Your task to perform on an android device: toggle show notifications on the lock screen Image 0: 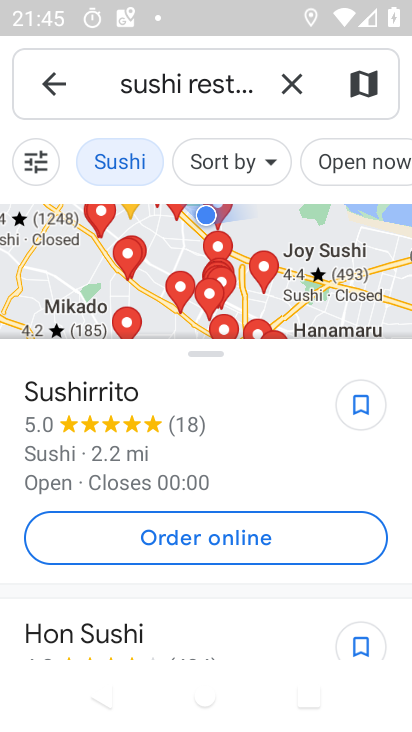
Step 0: press home button
Your task to perform on an android device: toggle show notifications on the lock screen Image 1: 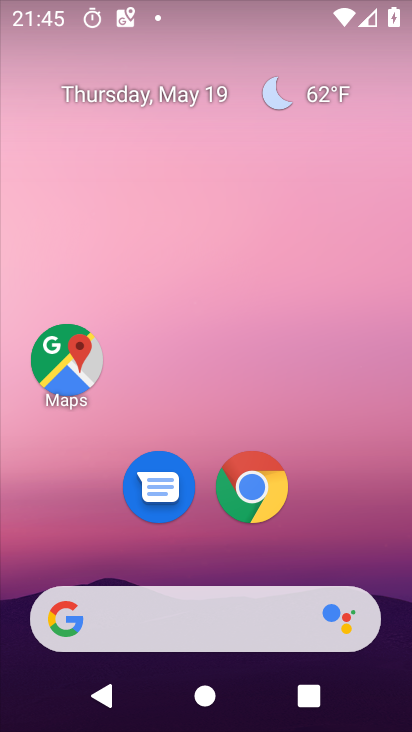
Step 1: drag from (268, 551) to (258, 98)
Your task to perform on an android device: toggle show notifications on the lock screen Image 2: 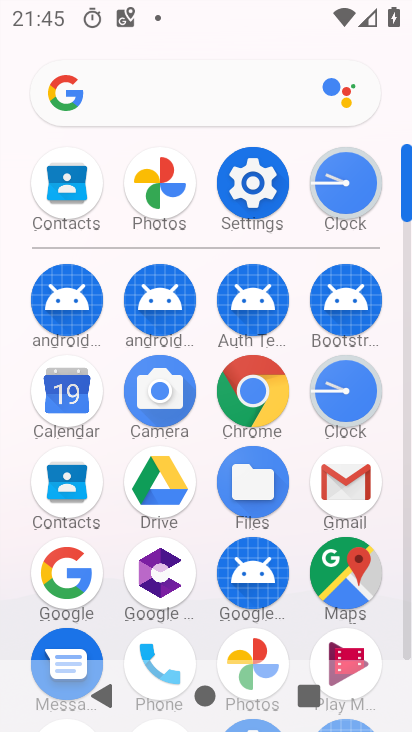
Step 2: click (261, 194)
Your task to perform on an android device: toggle show notifications on the lock screen Image 3: 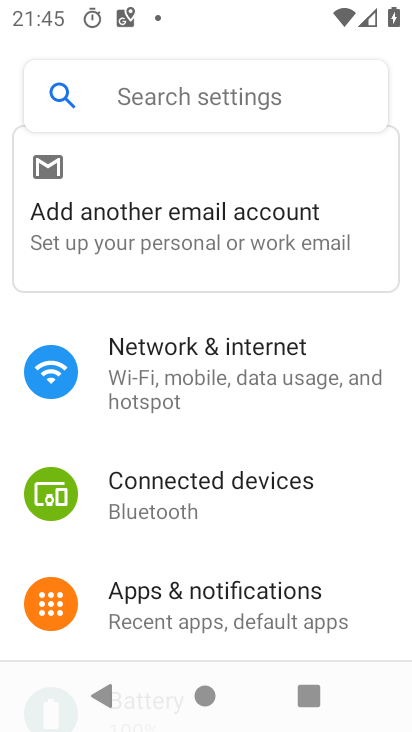
Step 3: drag from (283, 569) to (292, 453)
Your task to perform on an android device: toggle show notifications on the lock screen Image 4: 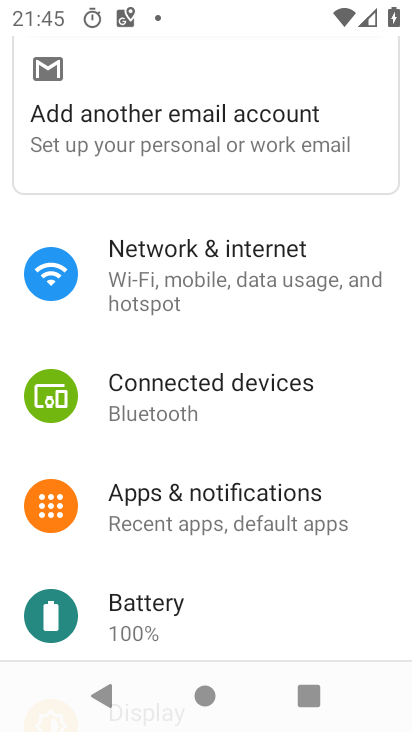
Step 4: click (263, 471)
Your task to perform on an android device: toggle show notifications on the lock screen Image 5: 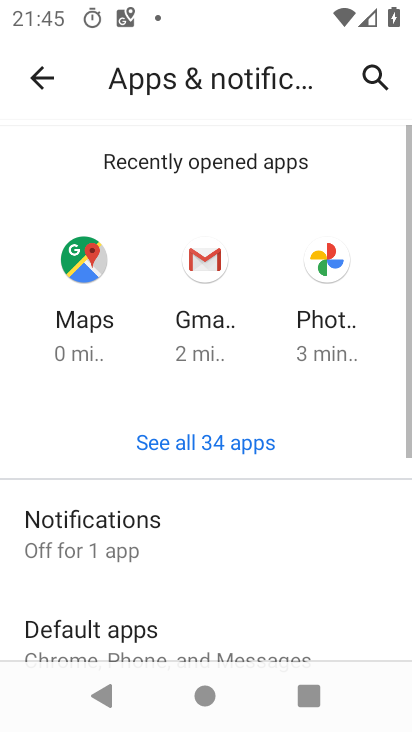
Step 5: click (159, 532)
Your task to perform on an android device: toggle show notifications on the lock screen Image 6: 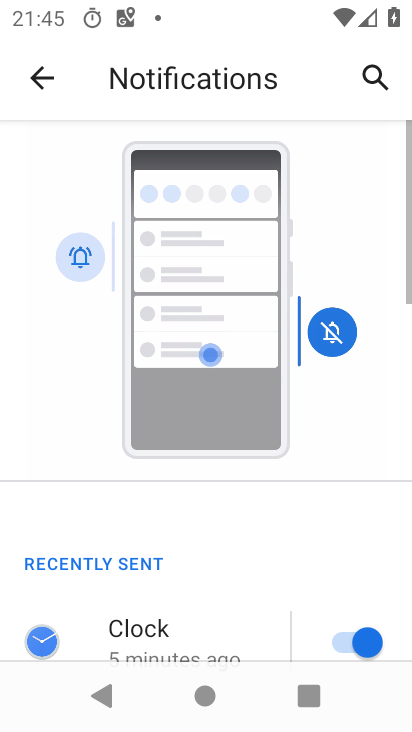
Step 6: drag from (293, 619) to (350, 117)
Your task to perform on an android device: toggle show notifications on the lock screen Image 7: 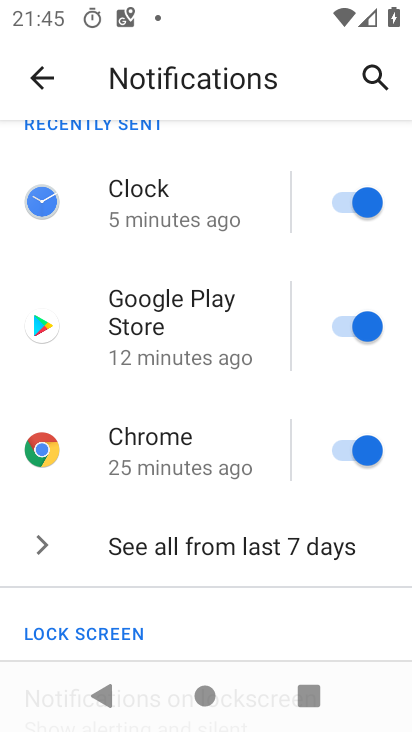
Step 7: drag from (237, 579) to (252, 191)
Your task to perform on an android device: toggle show notifications on the lock screen Image 8: 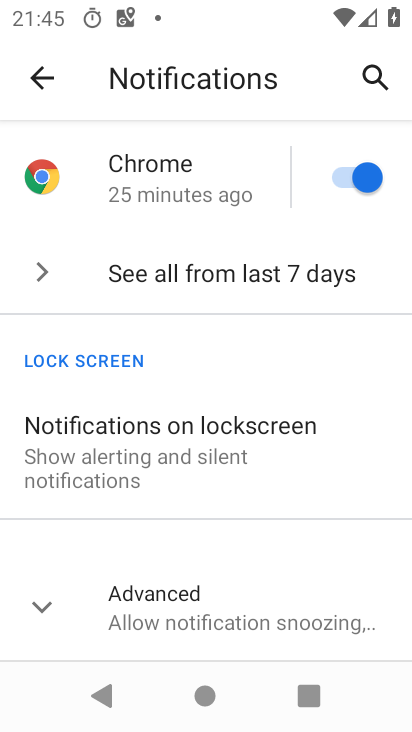
Step 8: click (173, 437)
Your task to perform on an android device: toggle show notifications on the lock screen Image 9: 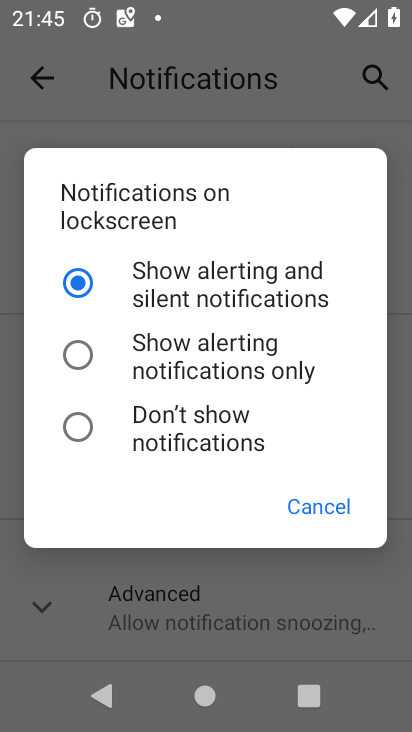
Step 9: click (80, 347)
Your task to perform on an android device: toggle show notifications on the lock screen Image 10: 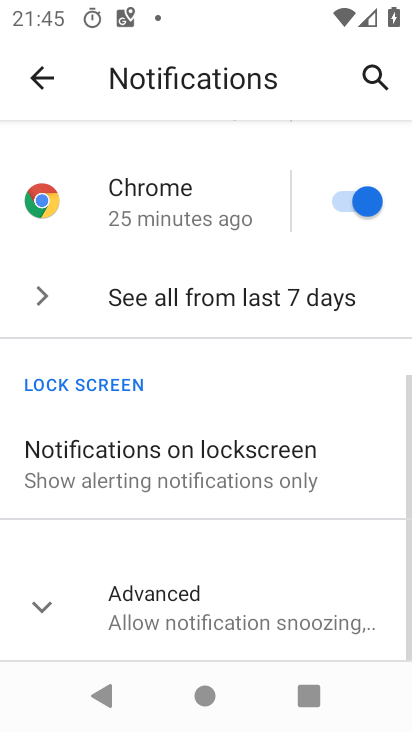
Step 10: task complete